Your task to perform on an android device: Search for vegetarian restaurants on Maps Image 0: 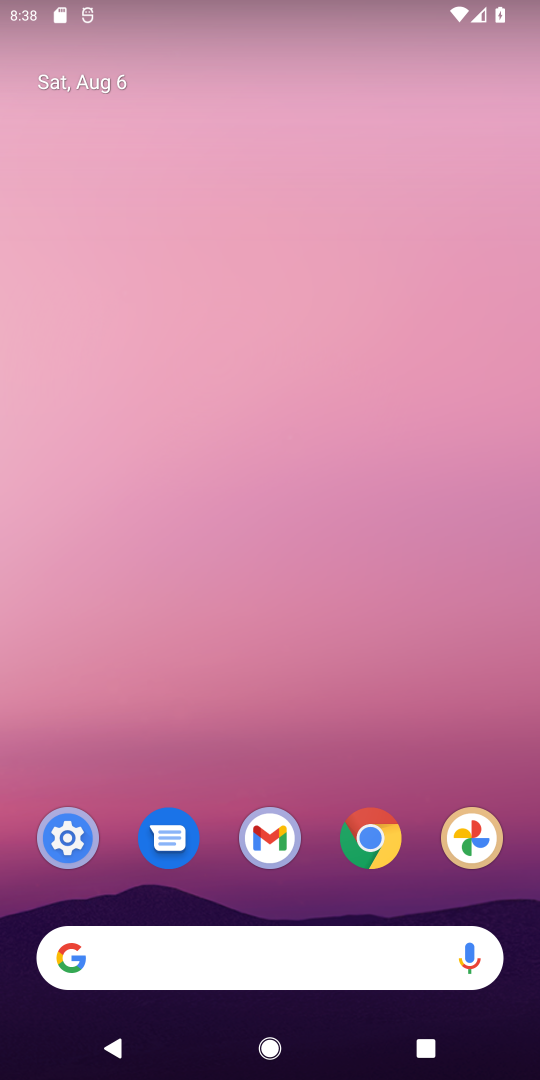
Step 0: press back button
Your task to perform on an android device: Search for vegetarian restaurants on Maps Image 1: 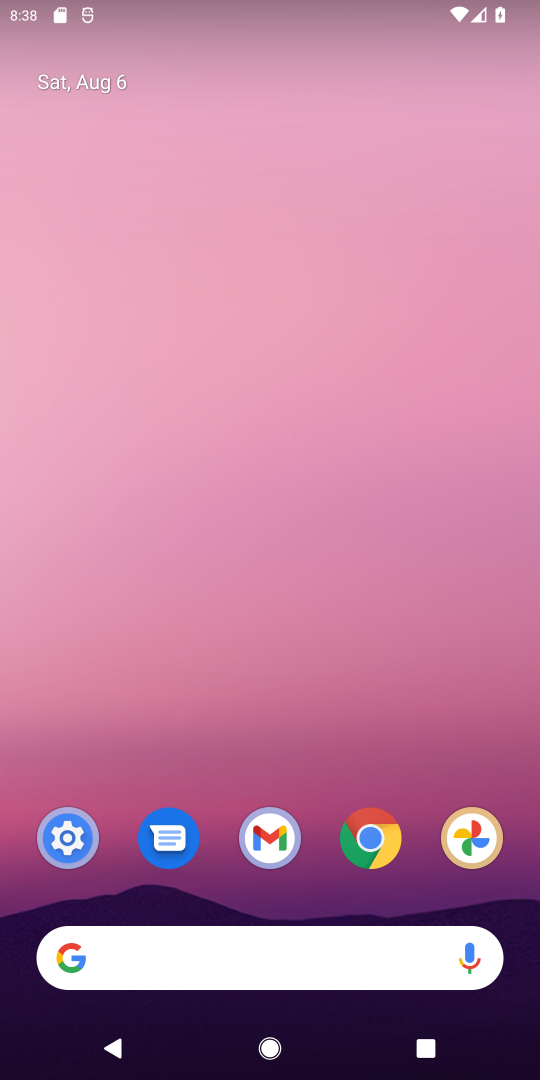
Step 1: drag from (320, 755) to (303, 478)
Your task to perform on an android device: Search for vegetarian restaurants on Maps Image 2: 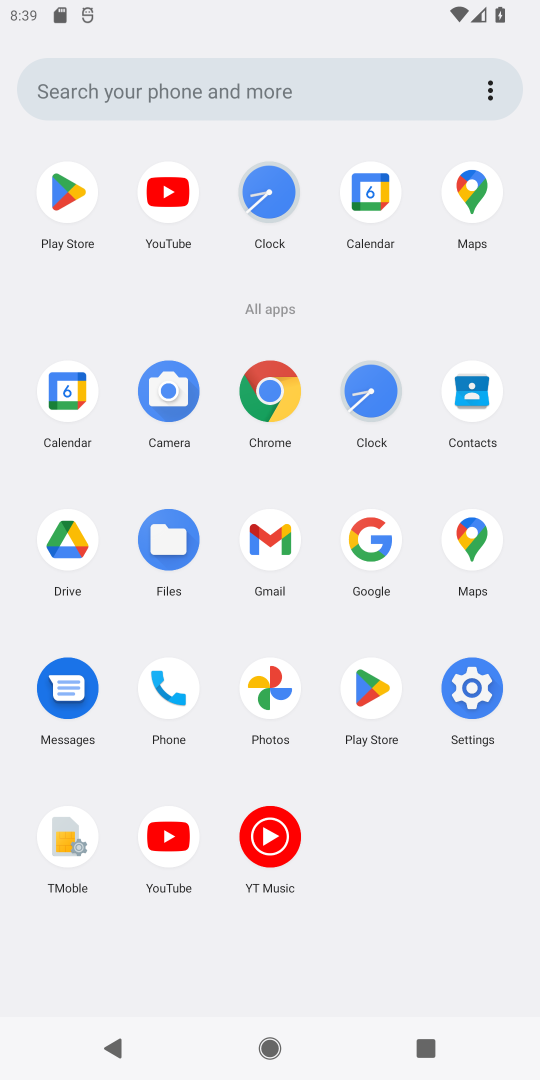
Step 2: click (464, 537)
Your task to perform on an android device: Search for vegetarian restaurants on Maps Image 3: 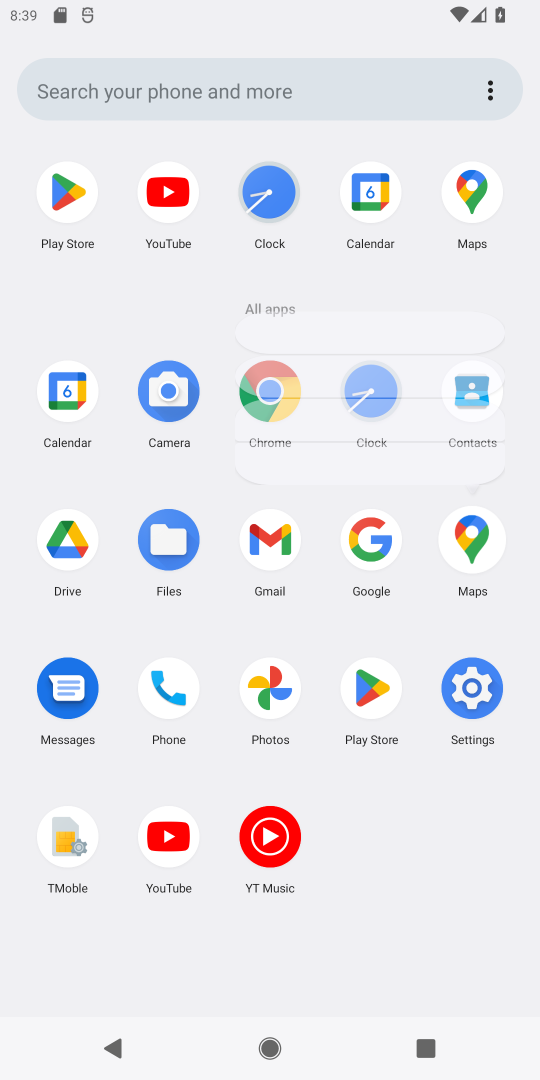
Step 3: click (464, 537)
Your task to perform on an android device: Search for vegetarian restaurants on Maps Image 4: 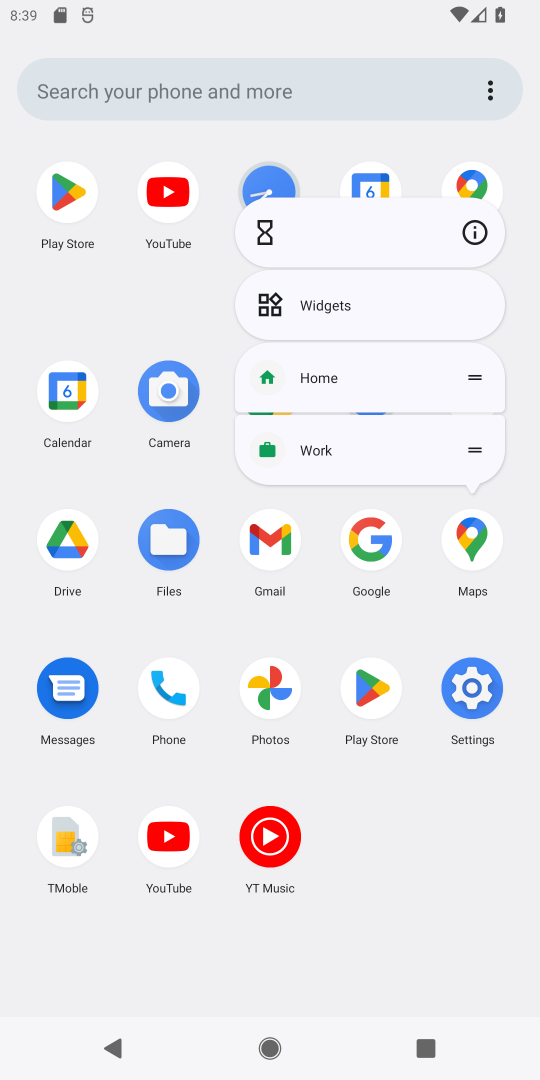
Step 4: click (480, 560)
Your task to perform on an android device: Search for vegetarian restaurants on Maps Image 5: 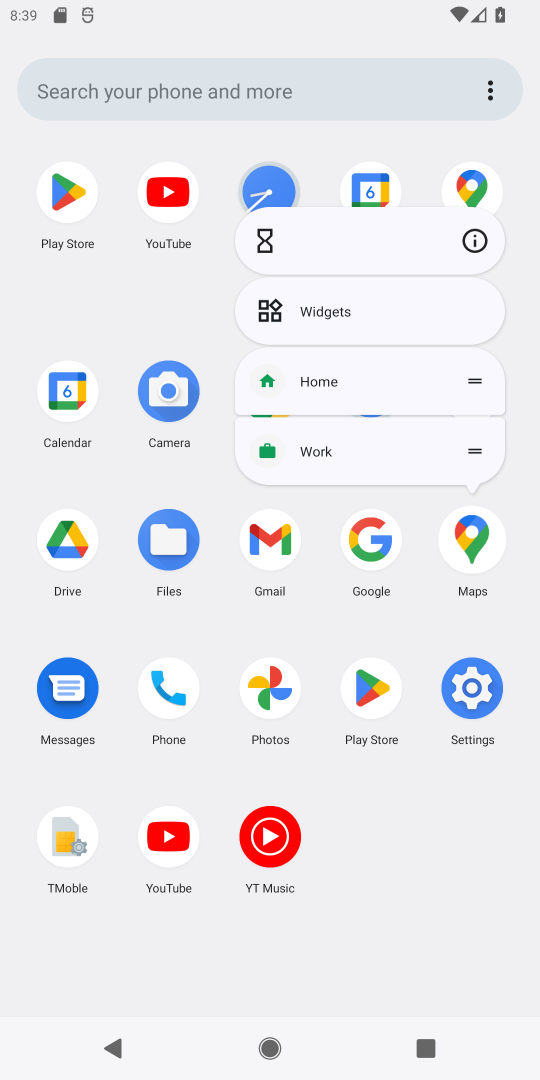
Step 5: click (480, 560)
Your task to perform on an android device: Search for vegetarian restaurants on Maps Image 6: 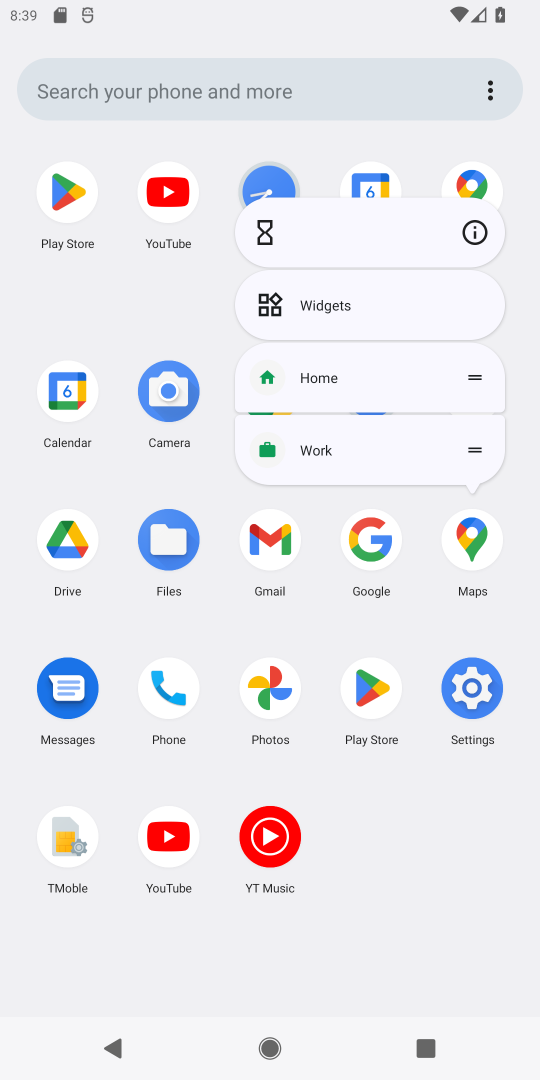
Step 6: click (480, 560)
Your task to perform on an android device: Search for vegetarian restaurants on Maps Image 7: 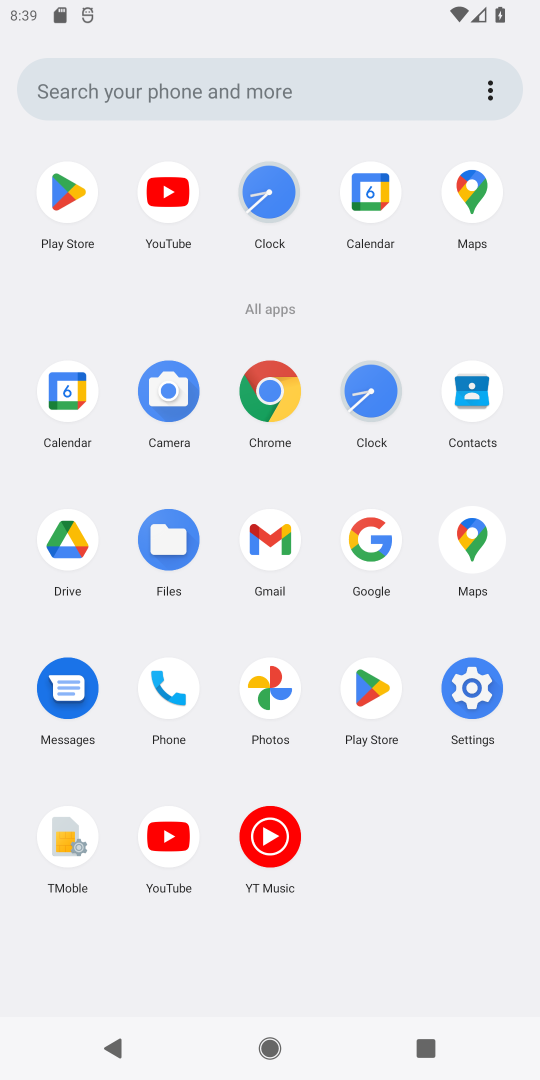
Step 7: click (479, 558)
Your task to perform on an android device: Search for vegetarian restaurants on Maps Image 8: 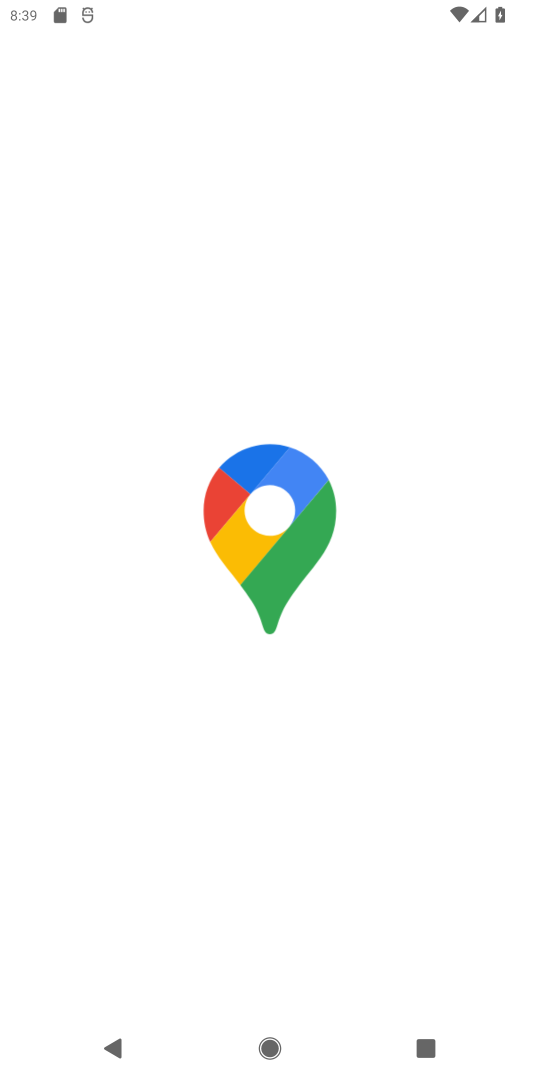
Step 8: click (475, 554)
Your task to perform on an android device: Search for vegetarian restaurants on Maps Image 9: 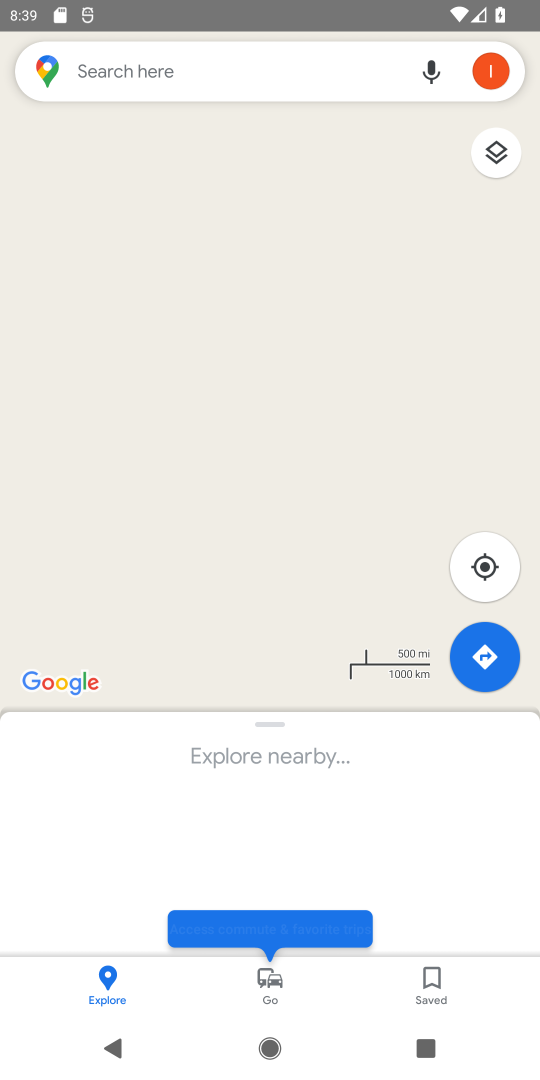
Step 9: click (117, 63)
Your task to perform on an android device: Search for vegetarian restaurants on Maps Image 10: 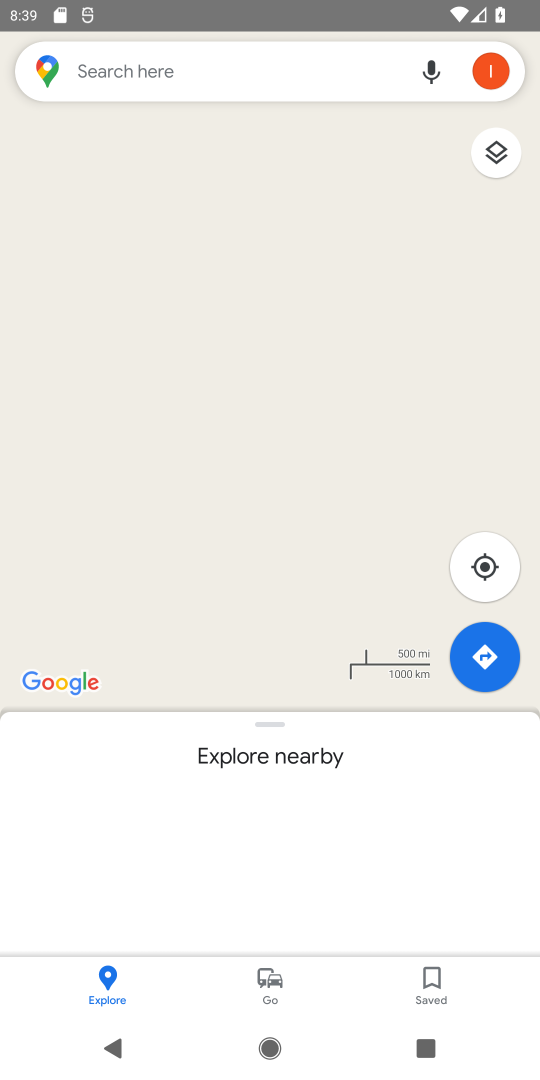
Step 10: click (119, 63)
Your task to perform on an android device: Search for vegetarian restaurants on Maps Image 11: 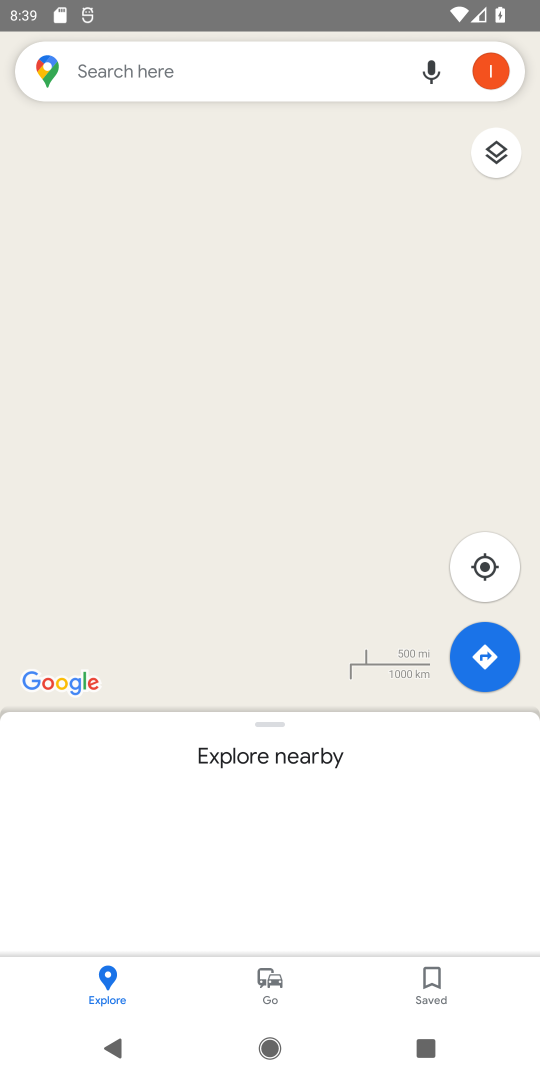
Step 11: click (121, 63)
Your task to perform on an android device: Search for vegetarian restaurants on Maps Image 12: 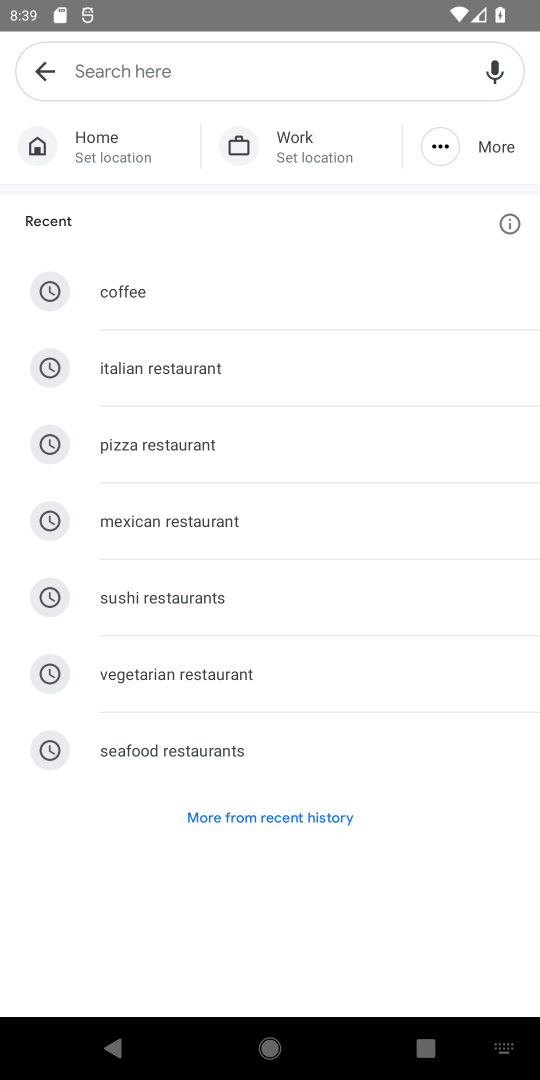
Step 12: type "vegetarian "
Your task to perform on an android device: Search for vegetarian restaurants on Maps Image 13: 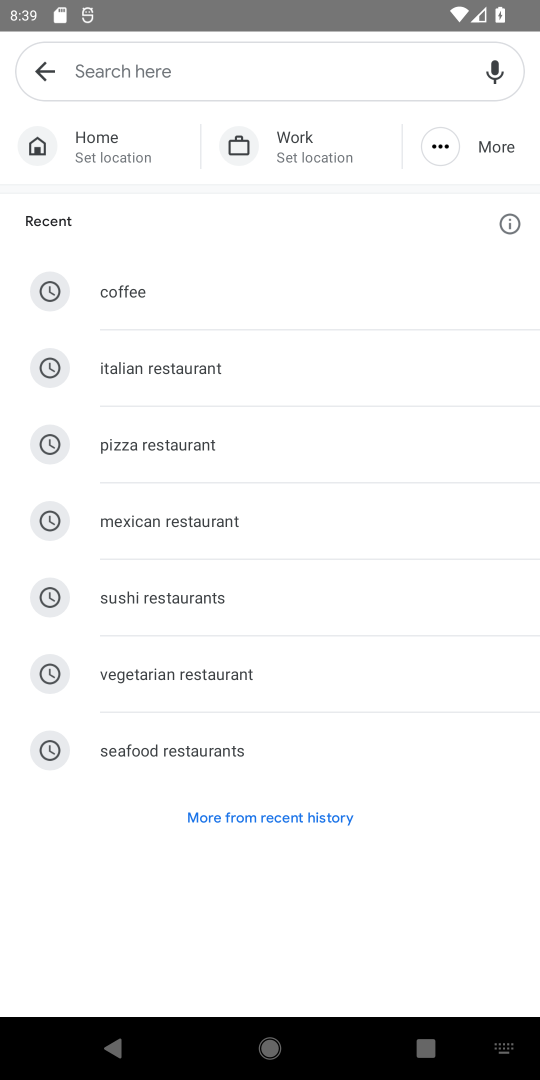
Step 13: click (228, 669)
Your task to perform on an android device: Search for vegetarian restaurants on Maps Image 14: 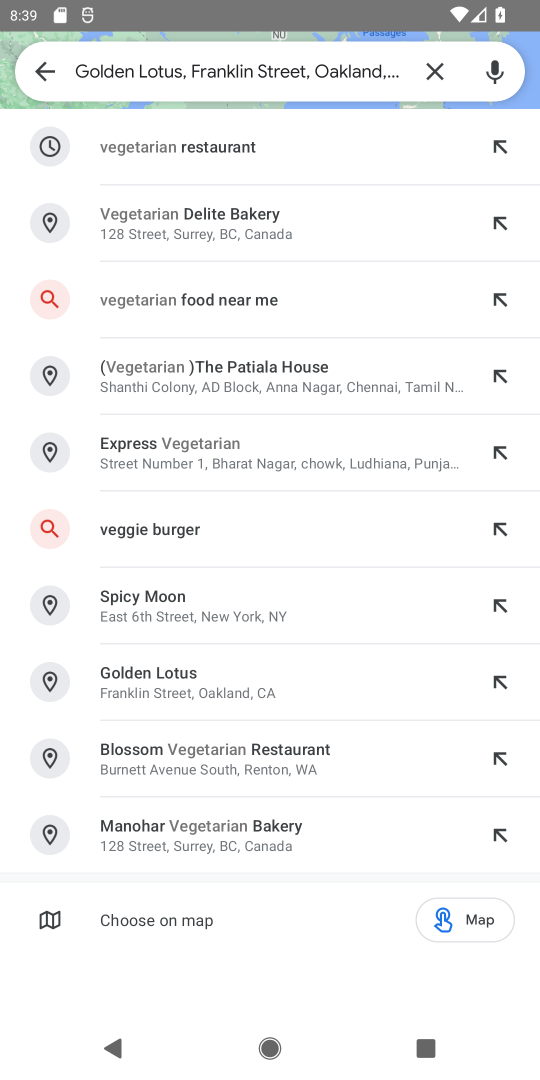
Step 14: click (178, 147)
Your task to perform on an android device: Search for vegetarian restaurants on Maps Image 15: 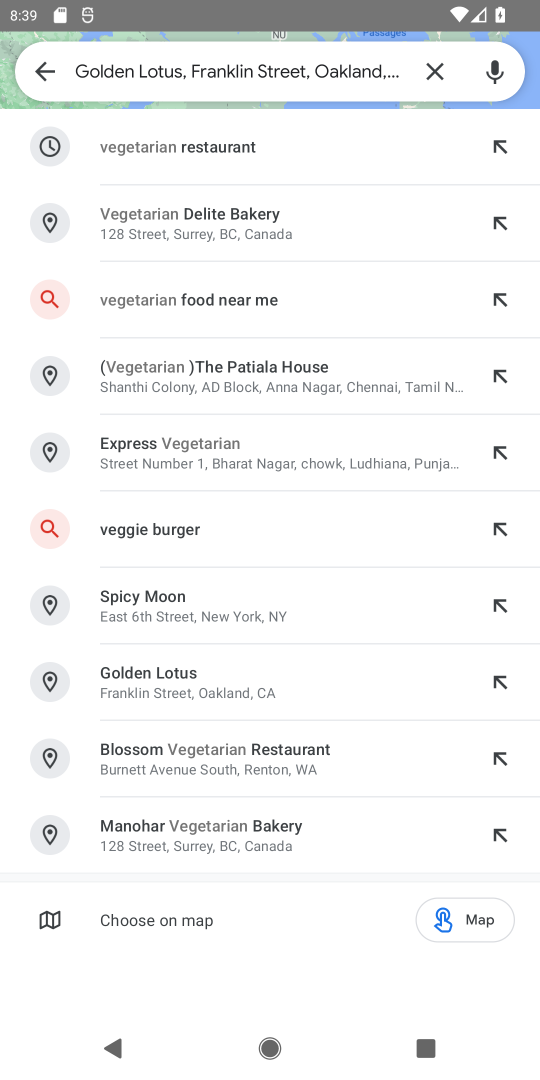
Step 15: click (178, 147)
Your task to perform on an android device: Search for vegetarian restaurants on Maps Image 16: 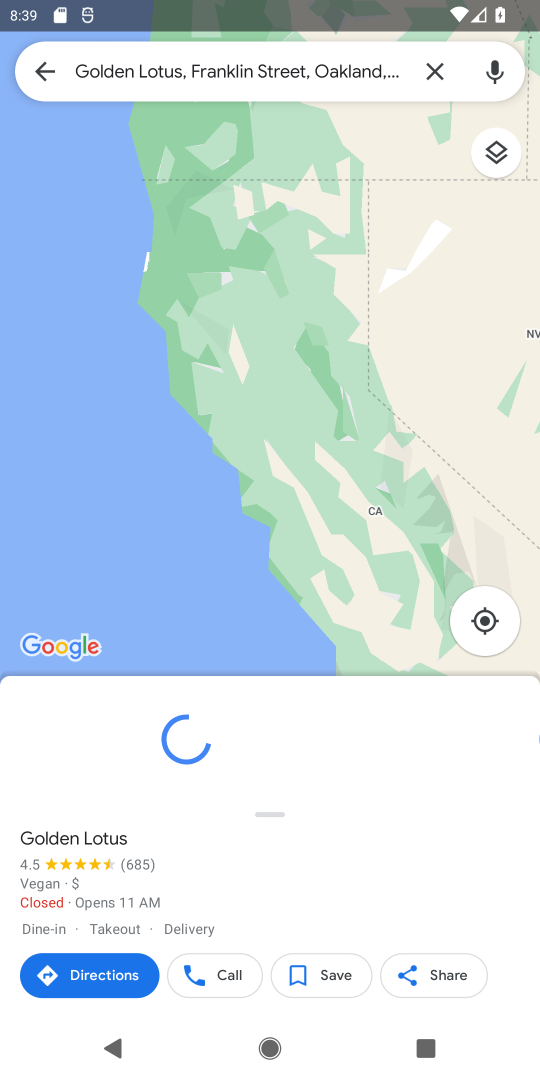
Step 16: click (178, 147)
Your task to perform on an android device: Search for vegetarian restaurants on Maps Image 17: 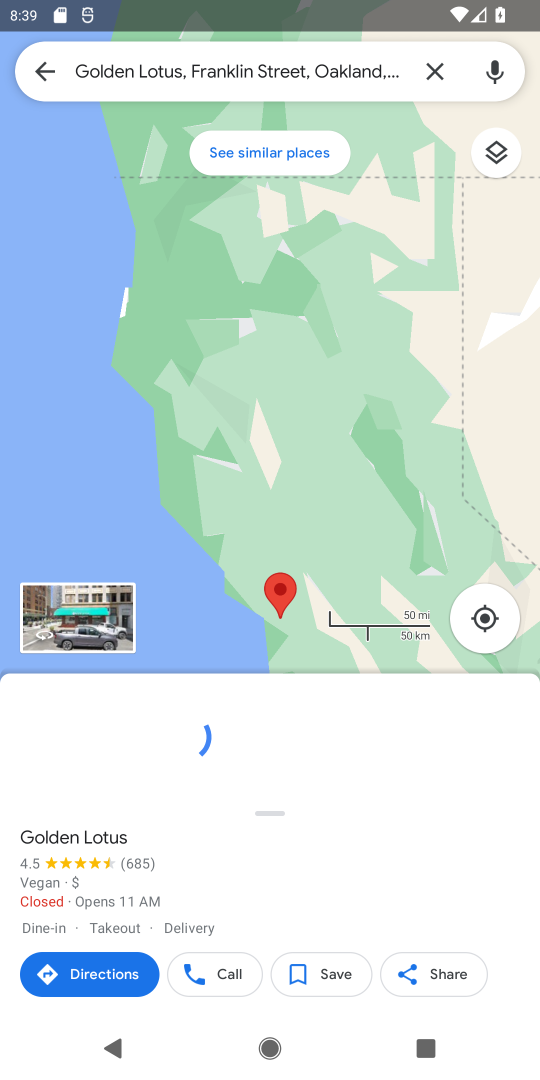
Step 17: click (178, 147)
Your task to perform on an android device: Search for vegetarian restaurants on Maps Image 18: 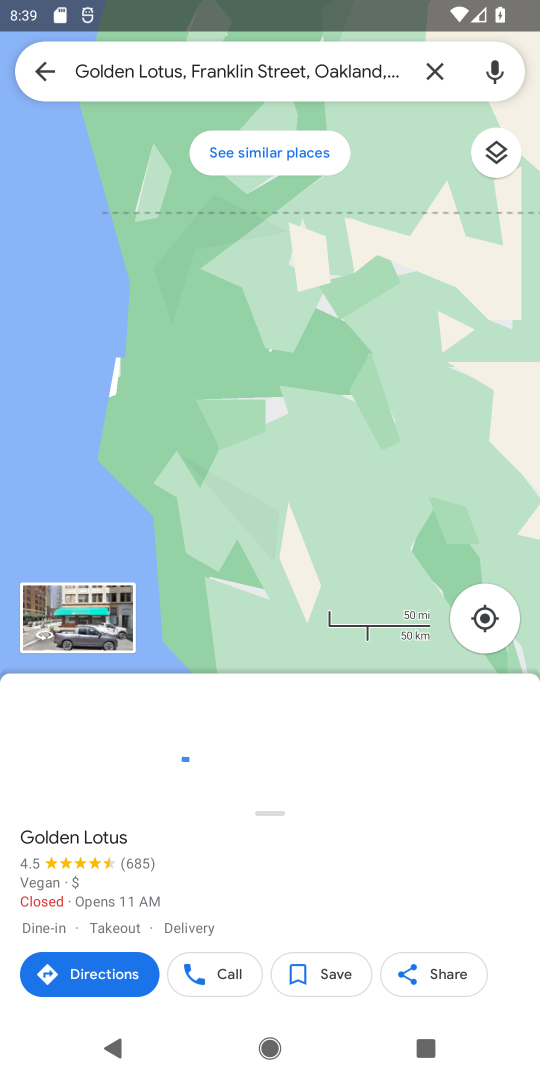
Step 18: click (178, 147)
Your task to perform on an android device: Search for vegetarian restaurants on Maps Image 19: 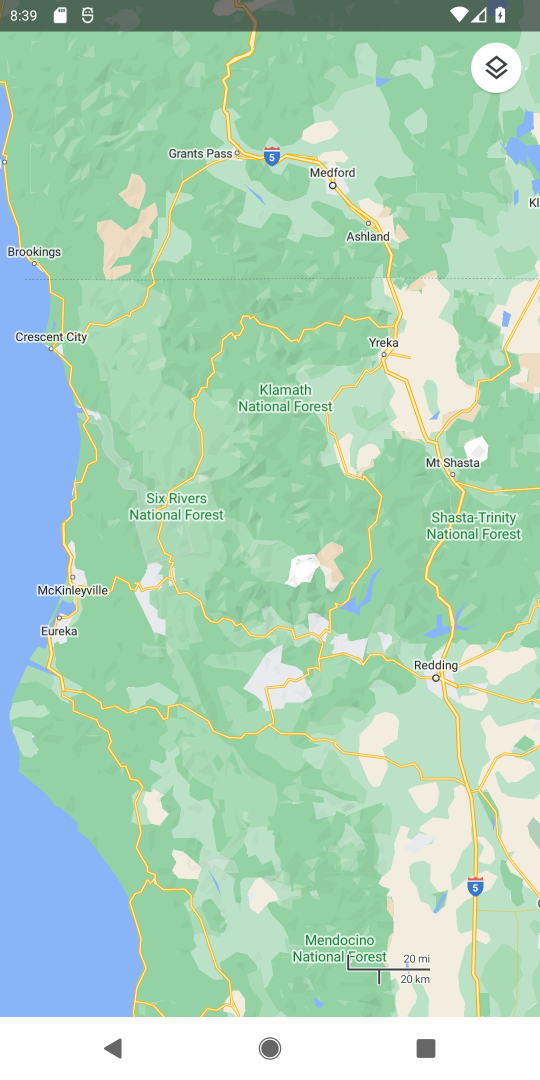
Step 19: task complete